Your task to perform on an android device: toggle improve location accuracy Image 0: 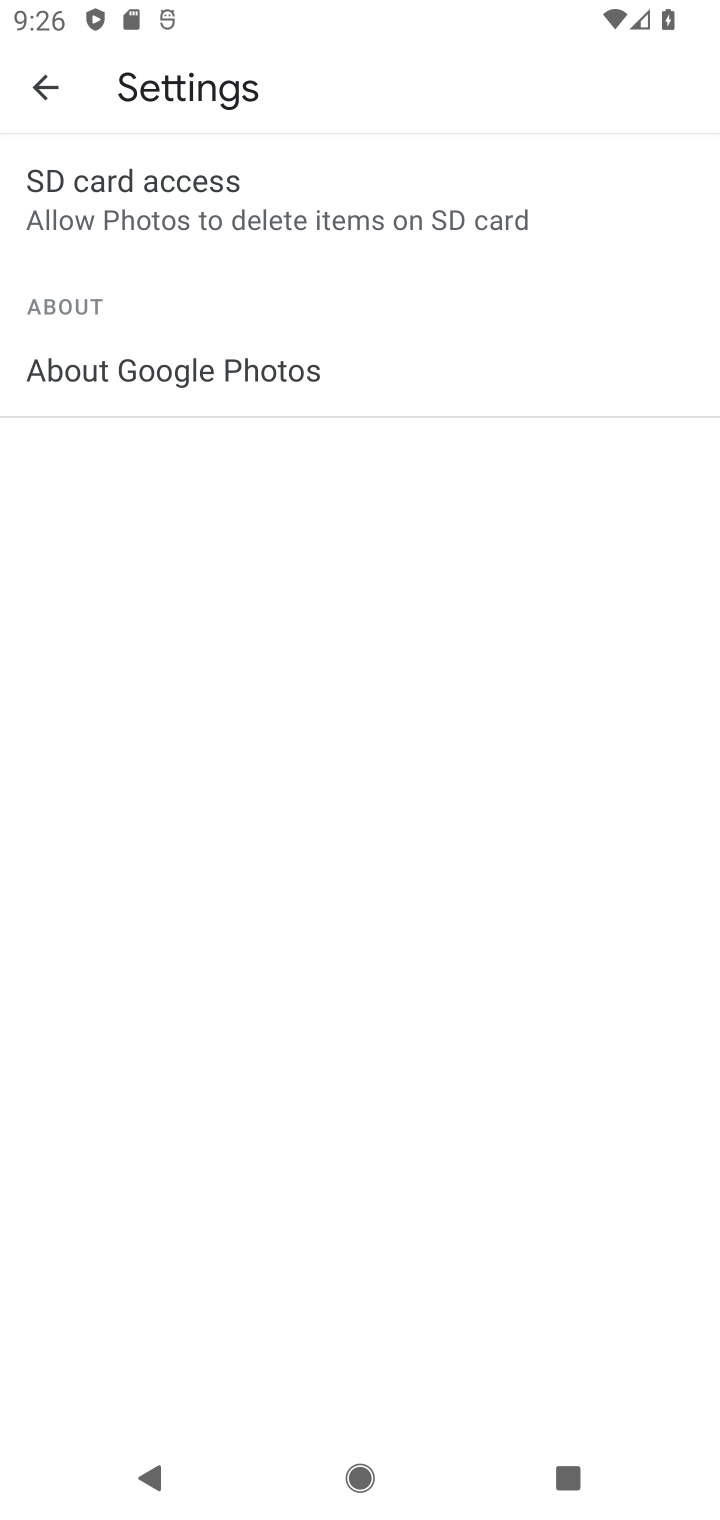
Step 0: press home button
Your task to perform on an android device: toggle improve location accuracy Image 1: 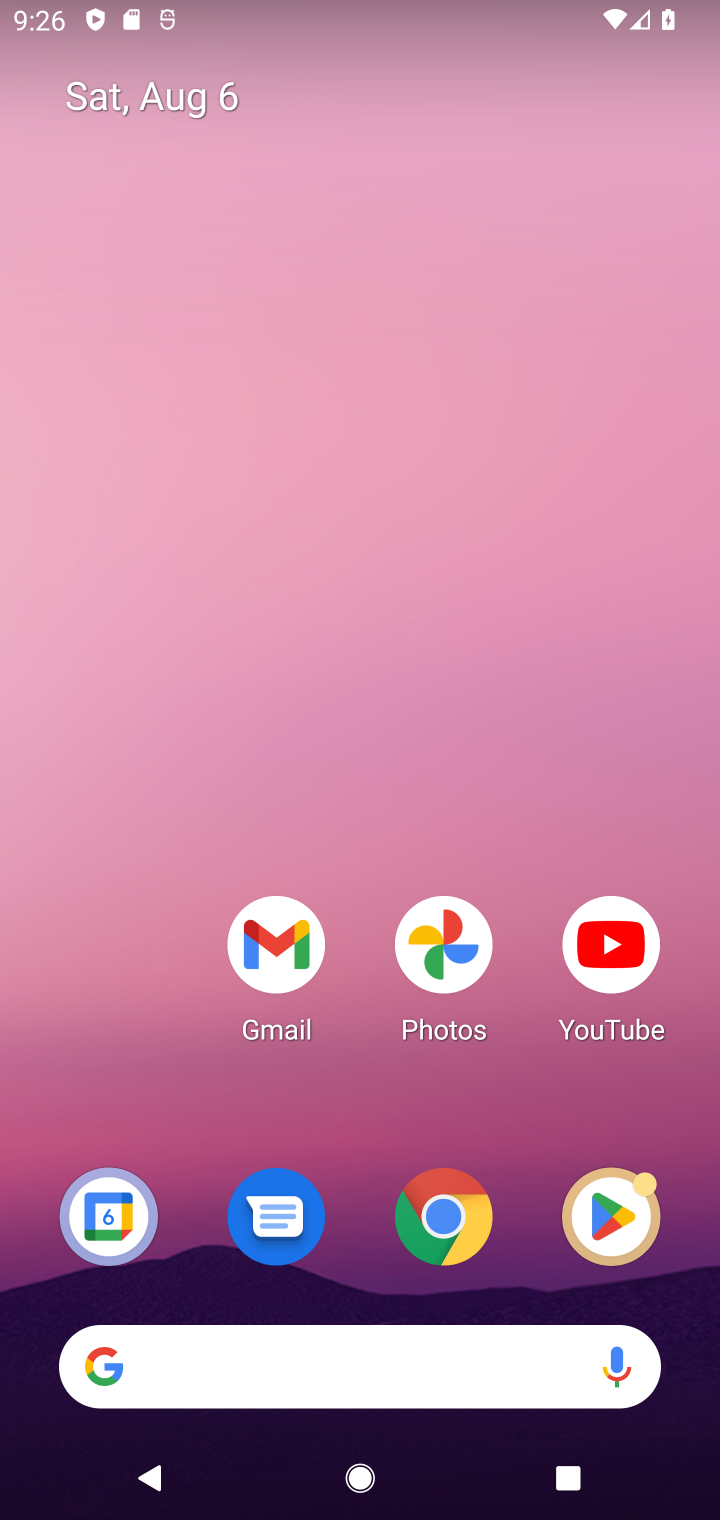
Step 1: drag from (291, 1337) to (487, 40)
Your task to perform on an android device: toggle improve location accuracy Image 2: 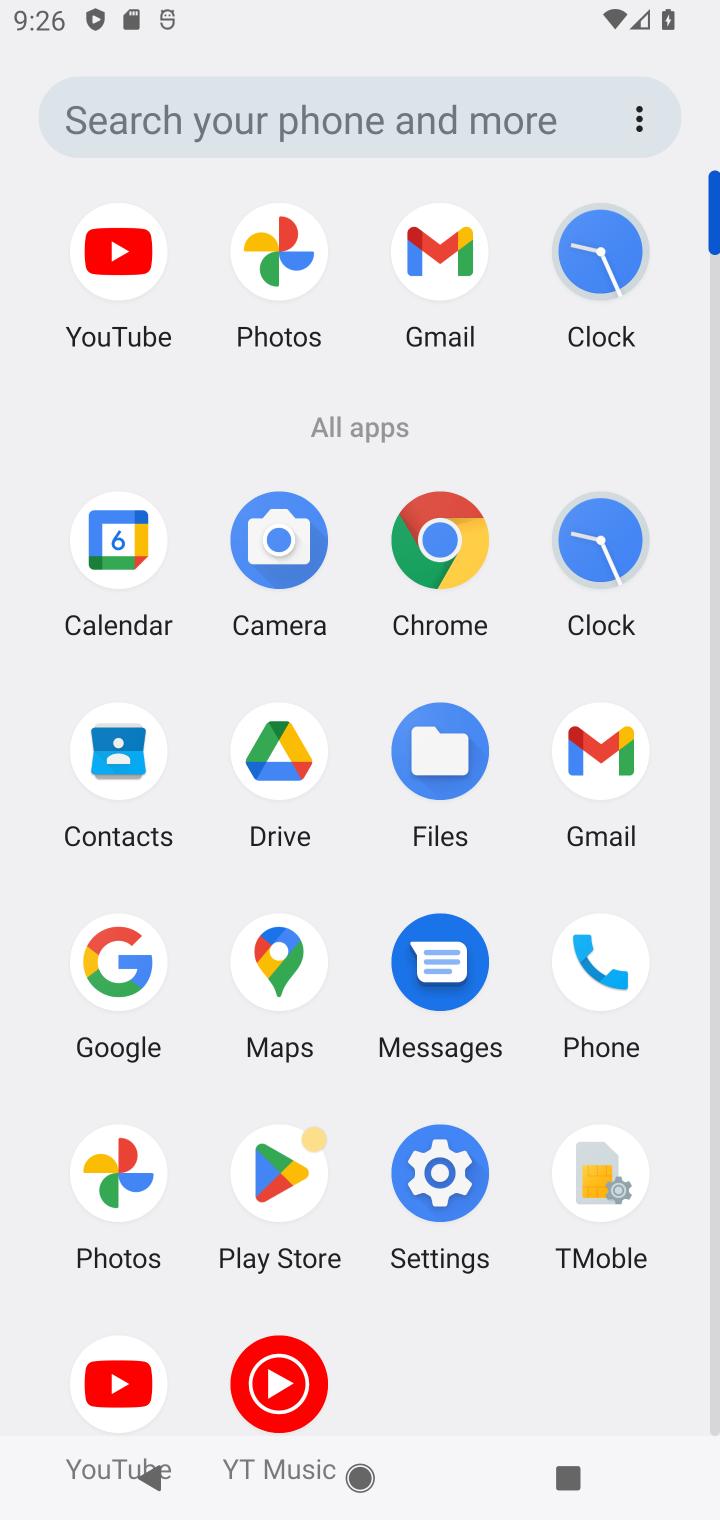
Step 2: click (417, 1197)
Your task to perform on an android device: toggle improve location accuracy Image 3: 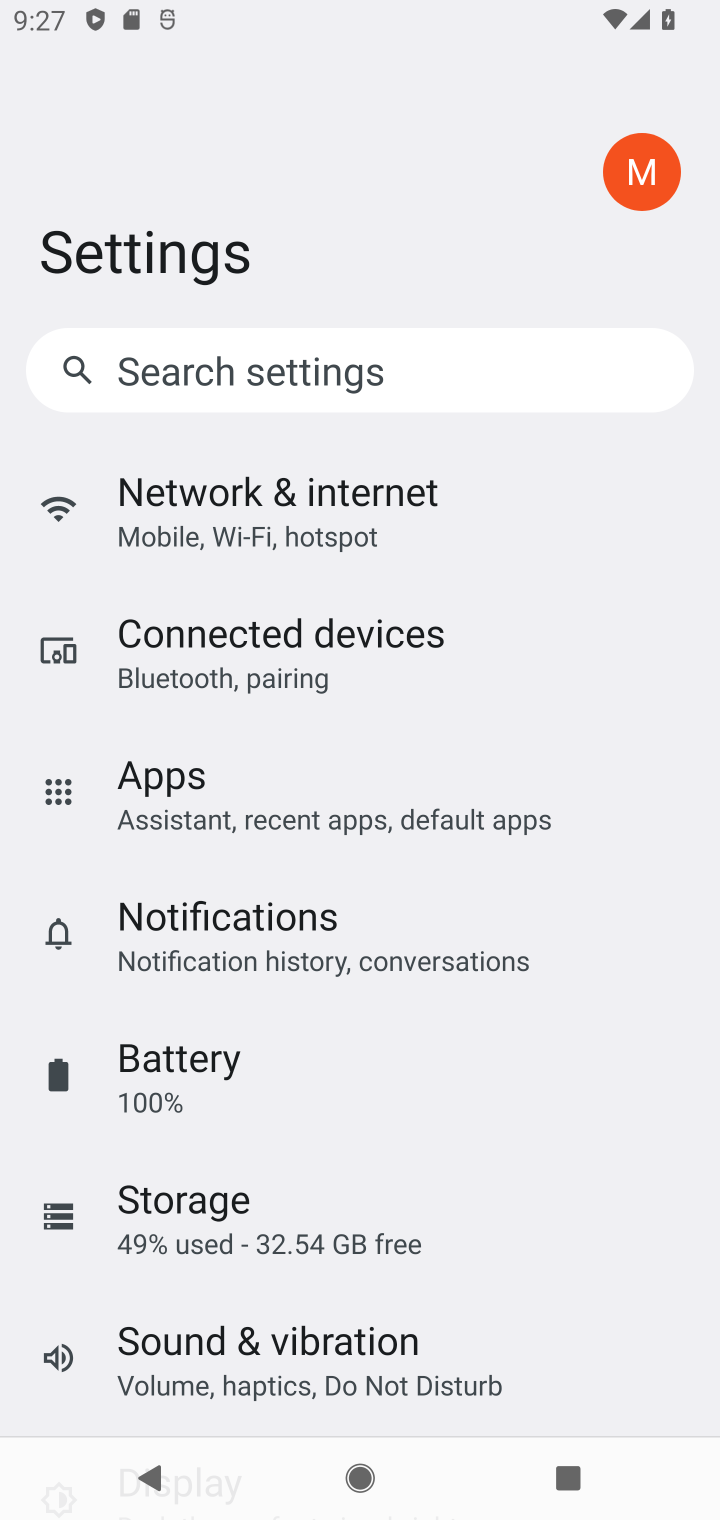
Step 3: drag from (404, 1199) to (371, 183)
Your task to perform on an android device: toggle improve location accuracy Image 4: 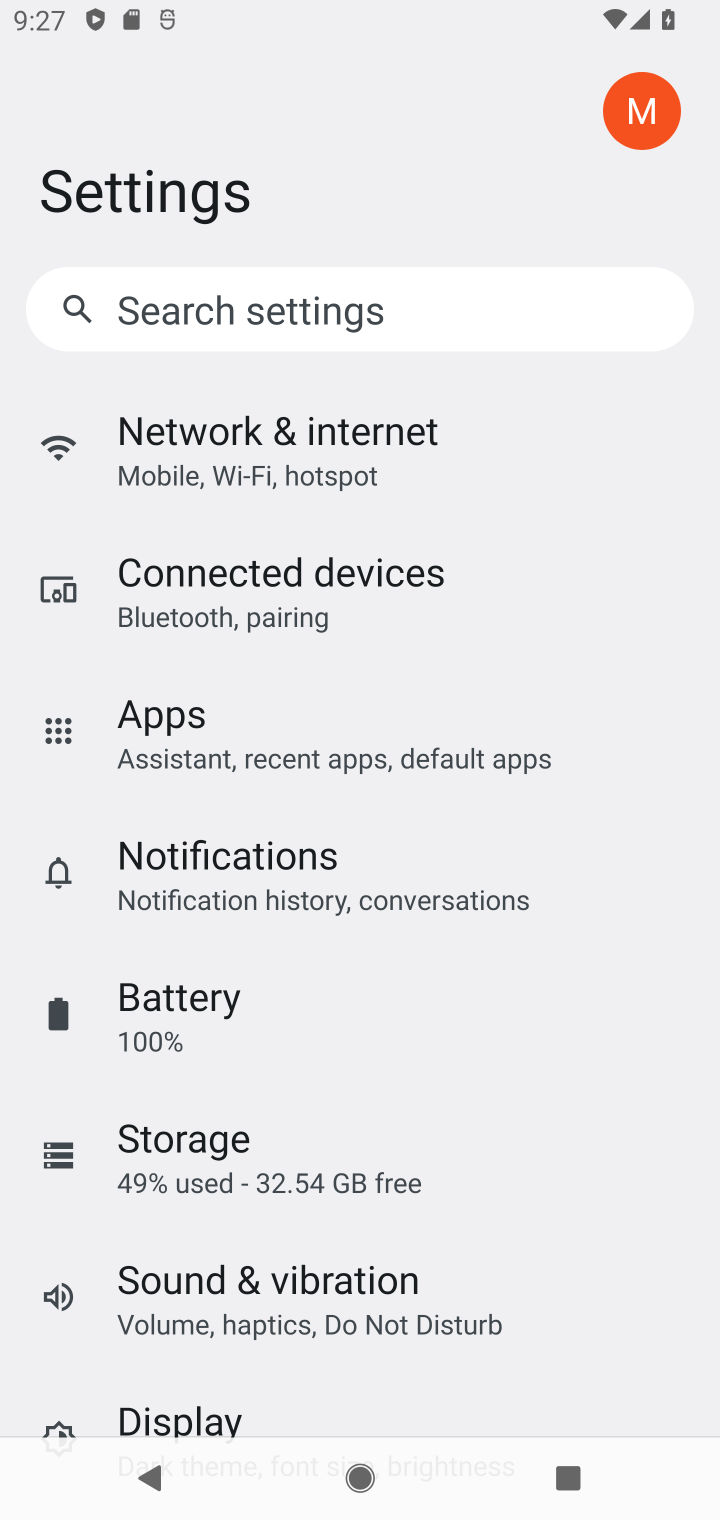
Step 4: drag from (253, 1400) to (451, 550)
Your task to perform on an android device: toggle improve location accuracy Image 5: 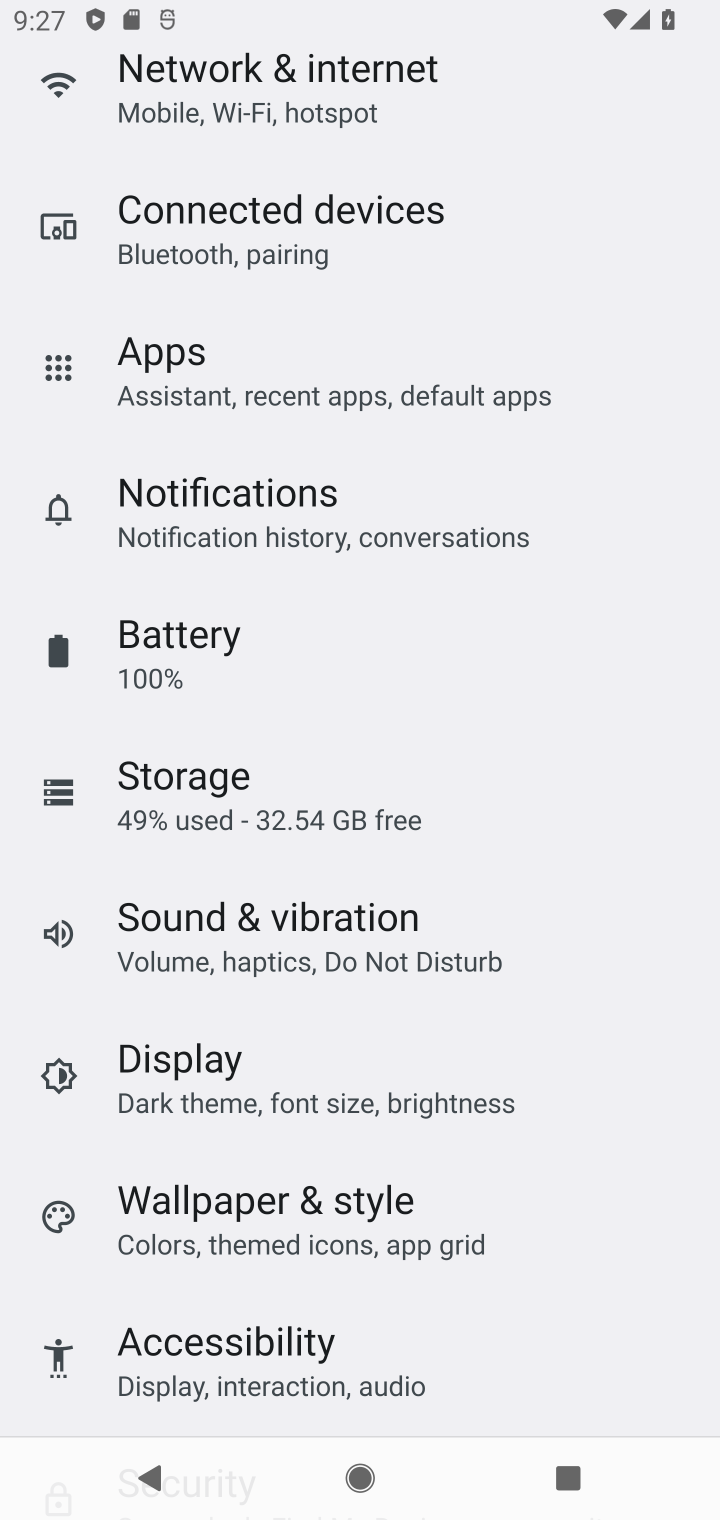
Step 5: drag from (283, 1318) to (425, 422)
Your task to perform on an android device: toggle improve location accuracy Image 6: 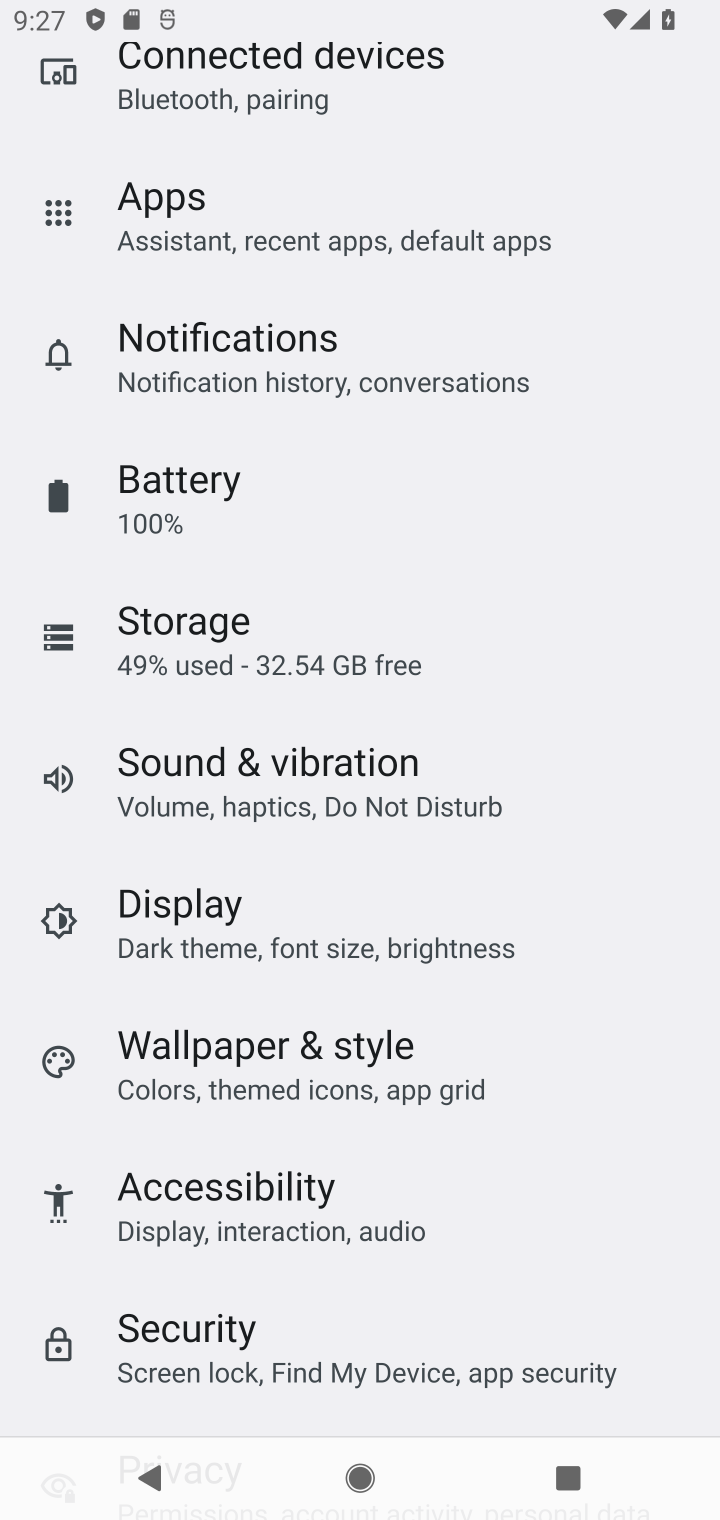
Step 6: drag from (273, 1371) to (460, 241)
Your task to perform on an android device: toggle improve location accuracy Image 7: 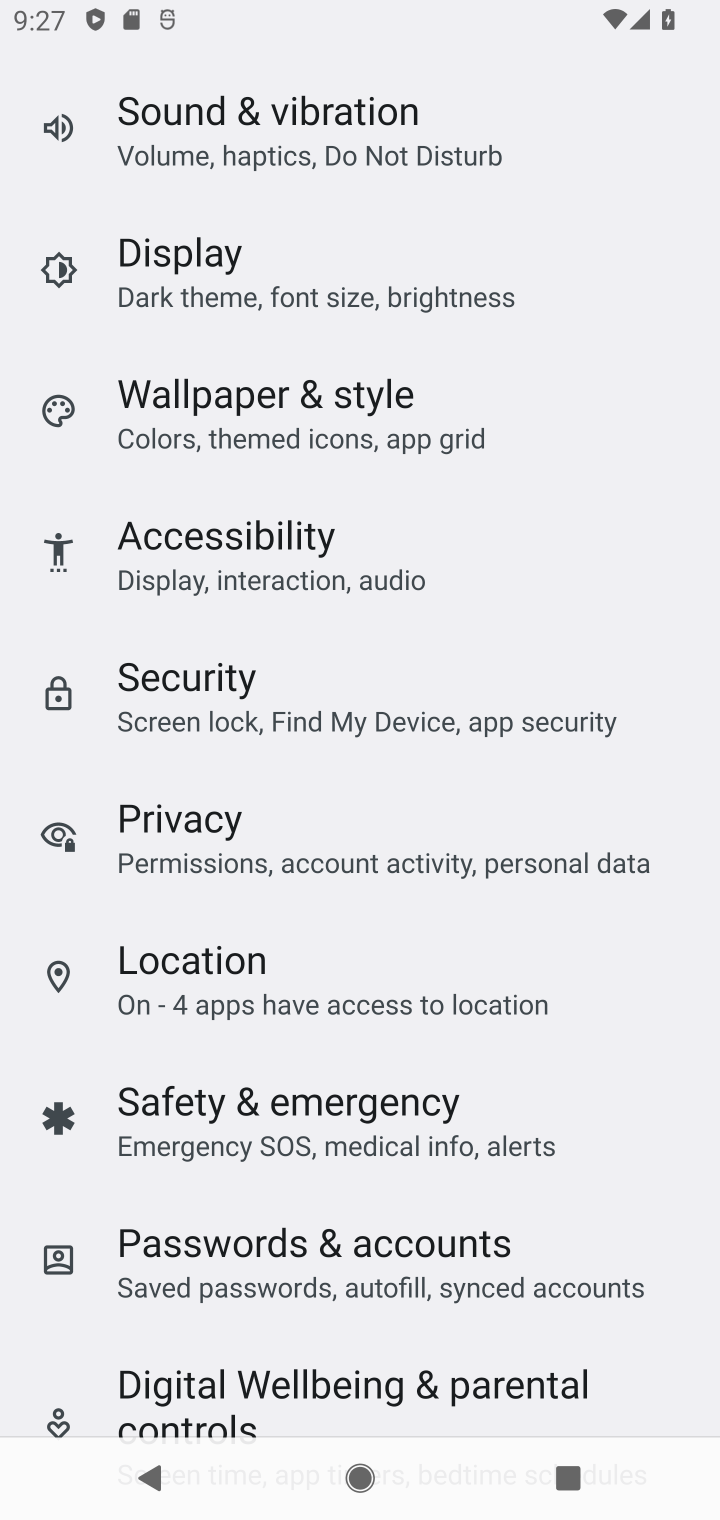
Step 7: click (300, 989)
Your task to perform on an android device: toggle improve location accuracy Image 8: 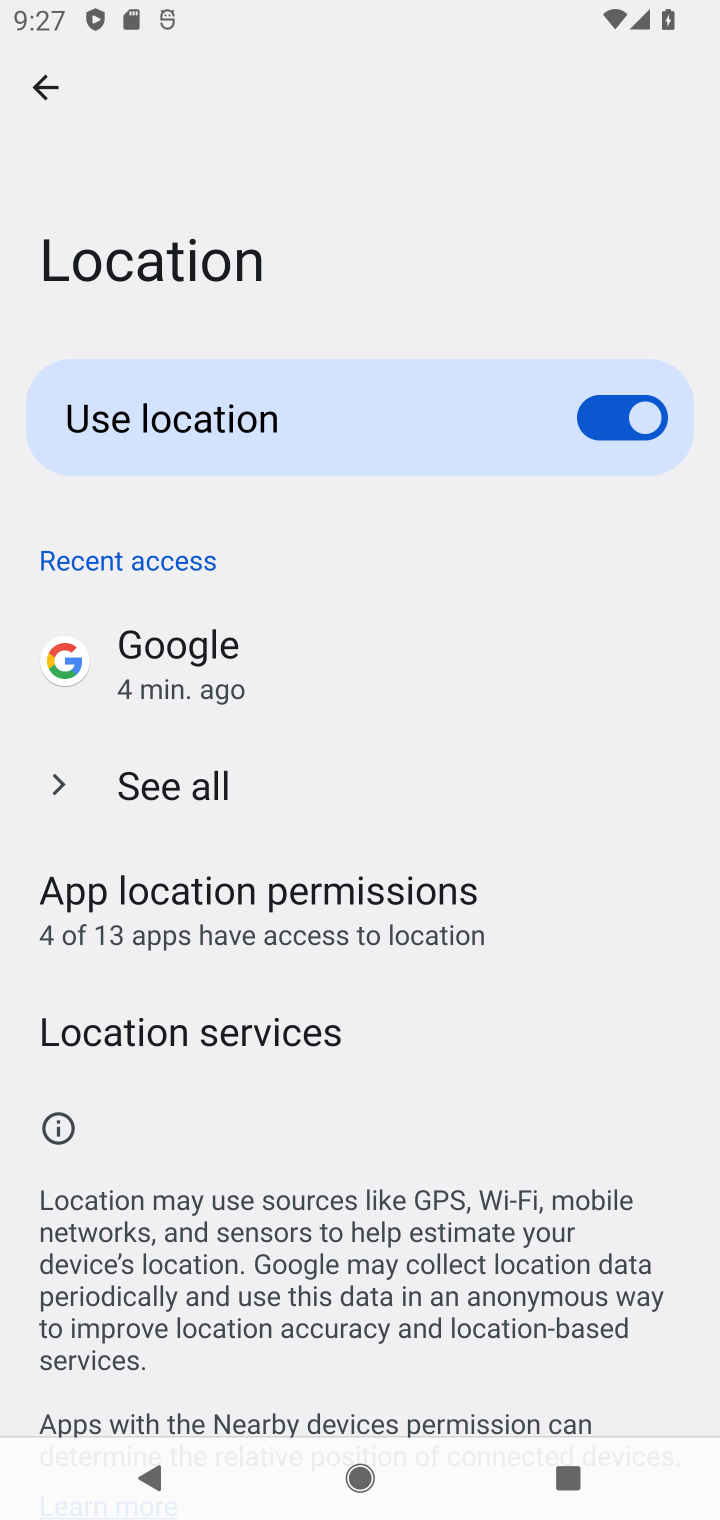
Step 8: click (279, 1042)
Your task to perform on an android device: toggle improve location accuracy Image 9: 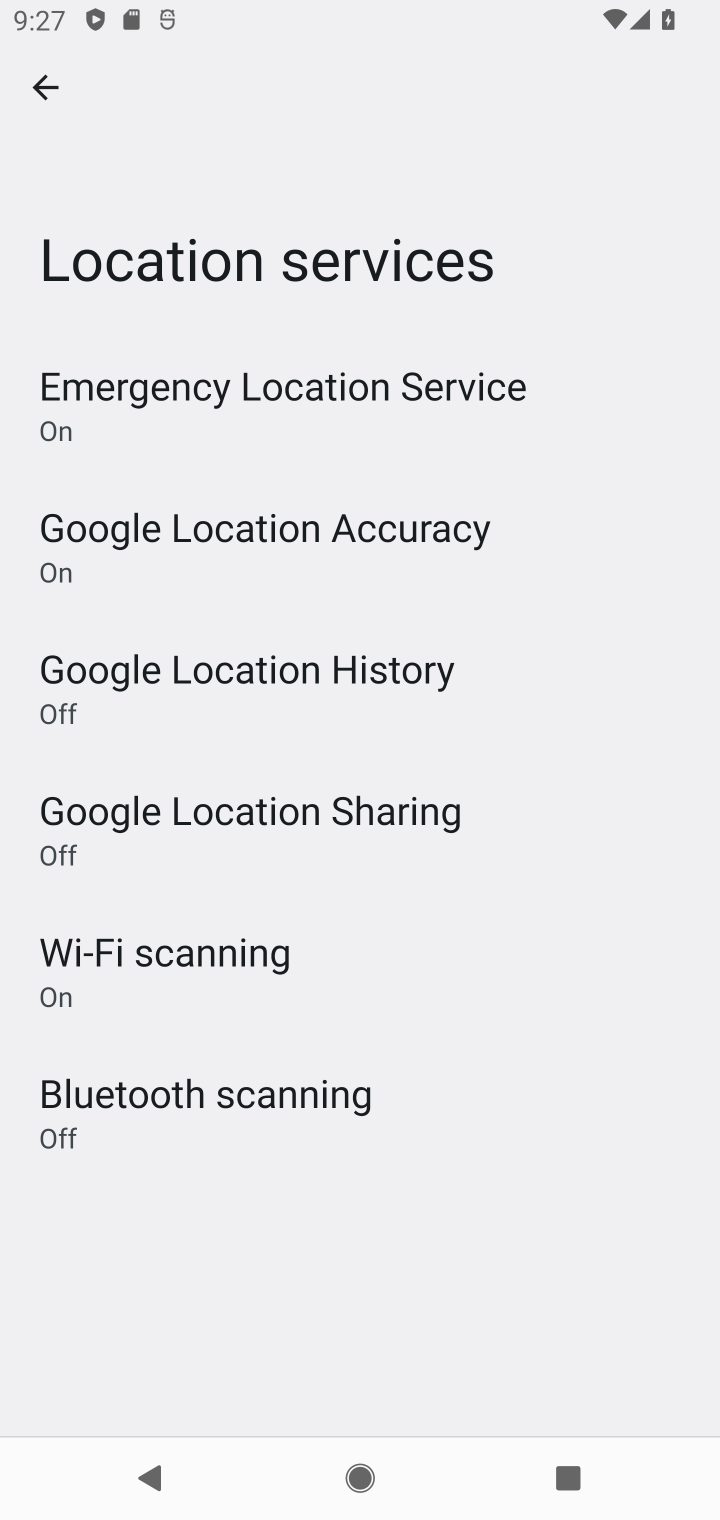
Step 9: click (281, 558)
Your task to perform on an android device: toggle improve location accuracy Image 10: 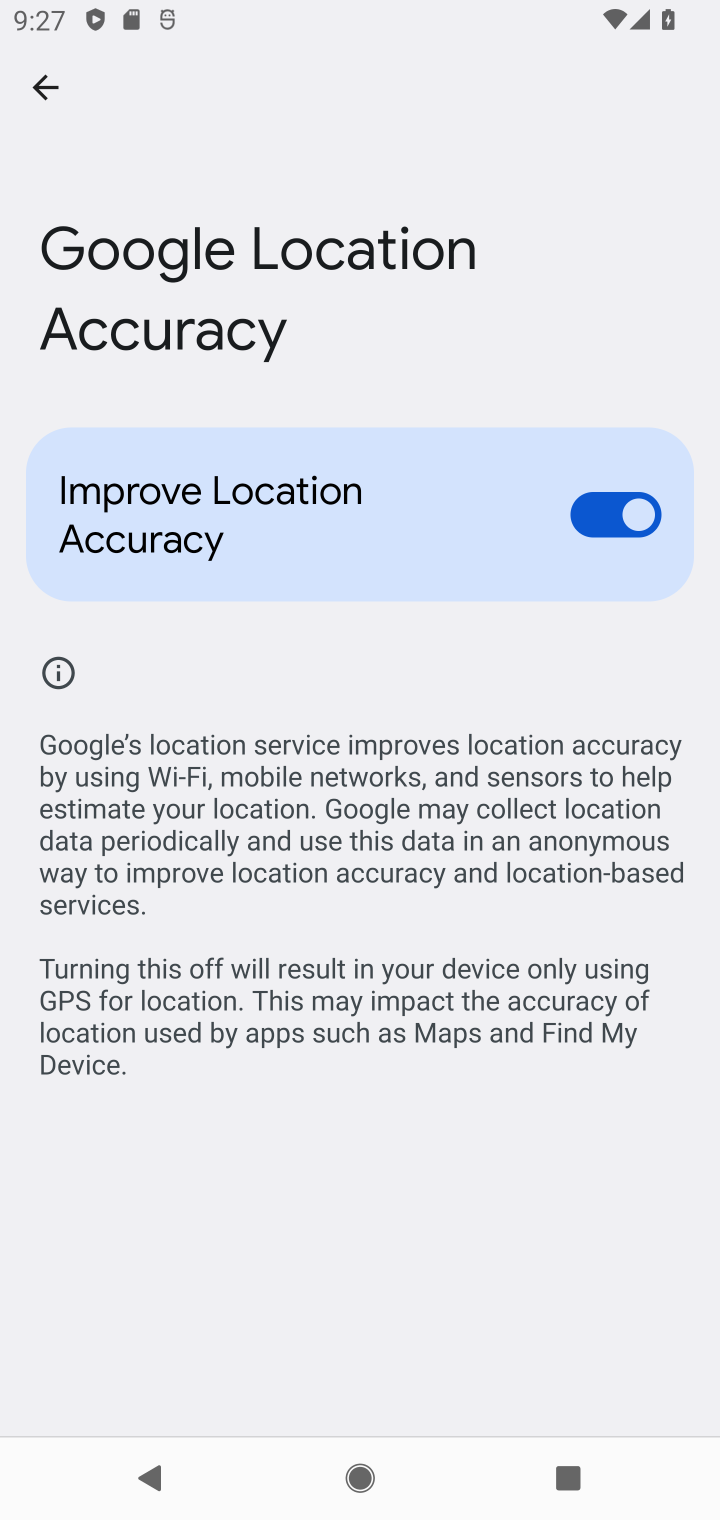
Step 10: click (623, 501)
Your task to perform on an android device: toggle improve location accuracy Image 11: 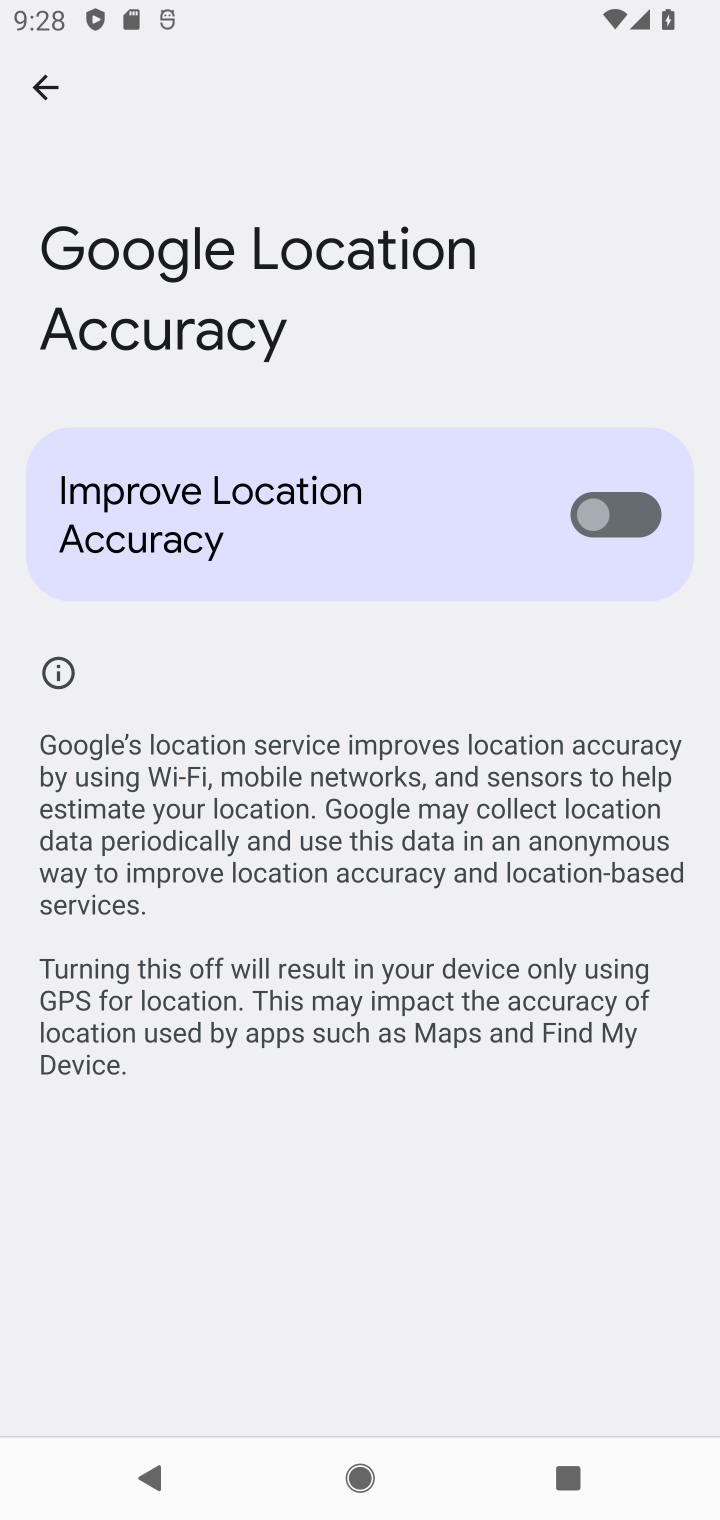
Step 11: task complete